Your task to perform on an android device: turn on the 12-hour format for clock Image 0: 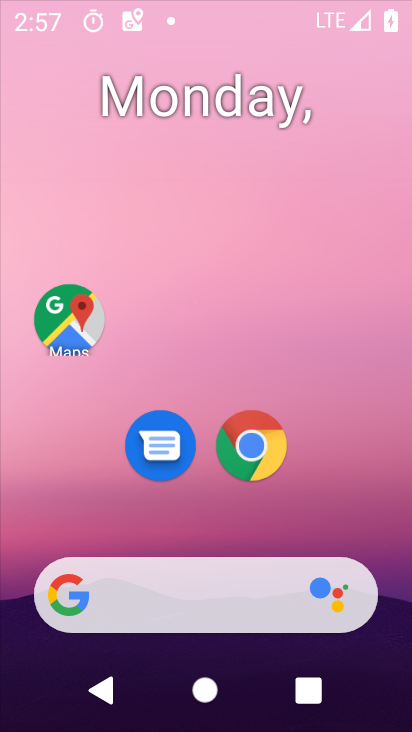
Step 0: drag from (396, 576) to (122, 218)
Your task to perform on an android device: turn on the 12-hour format for clock Image 1: 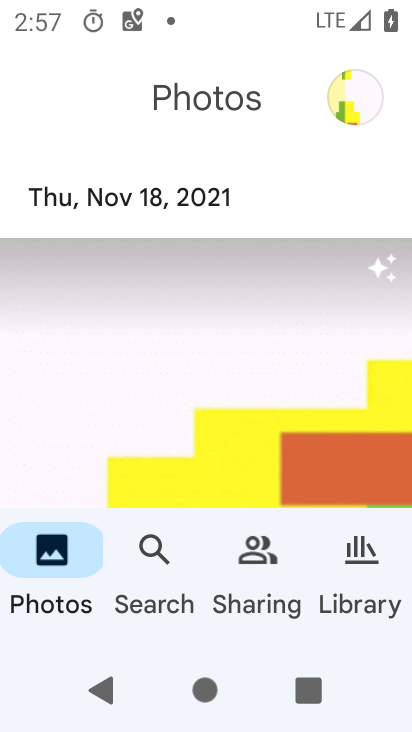
Step 1: press home button
Your task to perform on an android device: turn on the 12-hour format for clock Image 2: 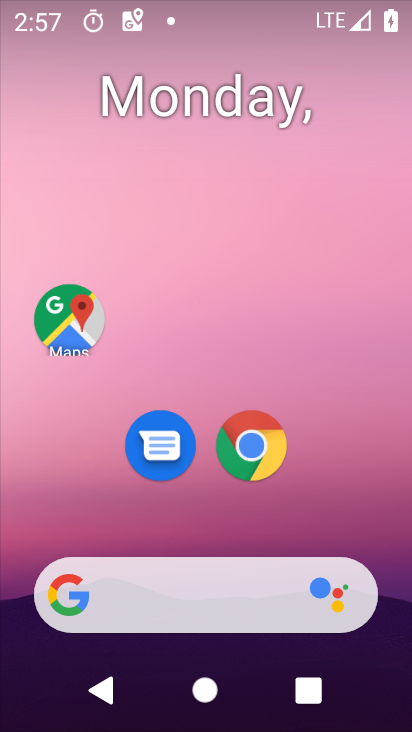
Step 2: drag from (256, 609) to (182, 125)
Your task to perform on an android device: turn on the 12-hour format for clock Image 3: 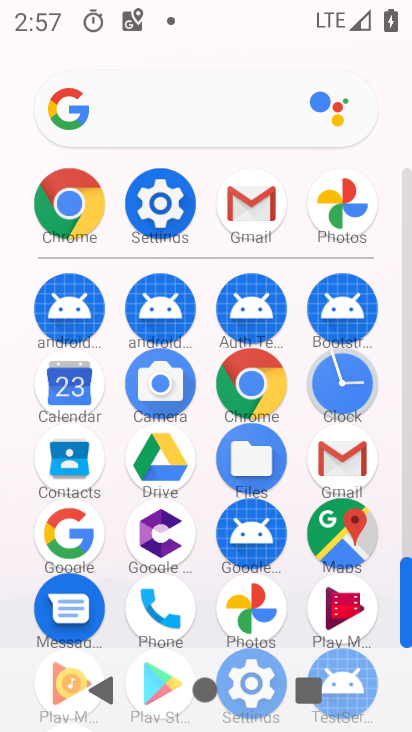
Step 3: click (147, 204)
Your task to perform on an android device: turn on the 12-hour format for clock Image 4: 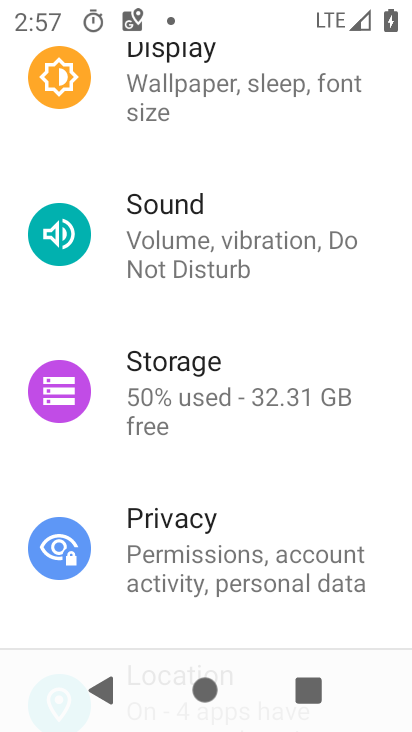
Step 4: drag from (218, 607) to (122, 18)
Your task to perform on an android device: turn on the 12-hour format for clock Image 5: 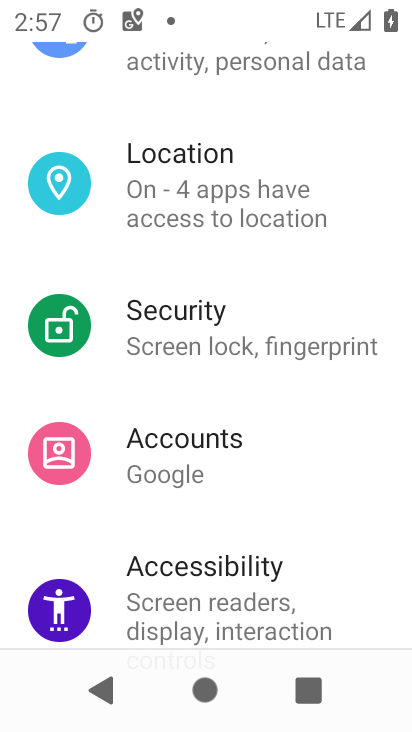
Step 5: drag from (153, 585) to (104, 120)
Your task to perform on an android device: turn on the 12-hour format for clock Image 6: 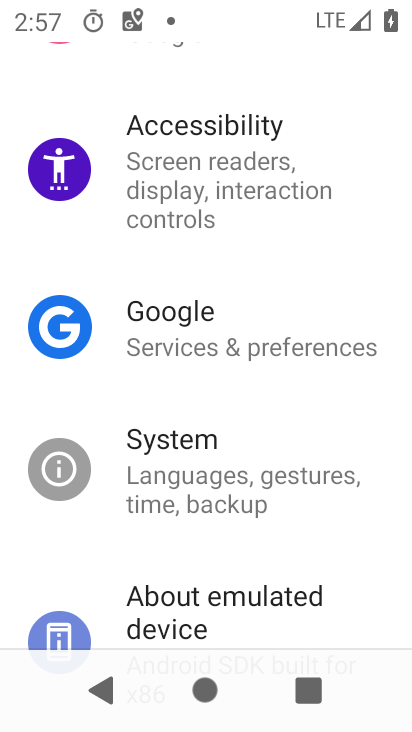
Step 6: click (170, 457)
Your task to perform on an android device: turn on the 12-hour format for clock Image 7: 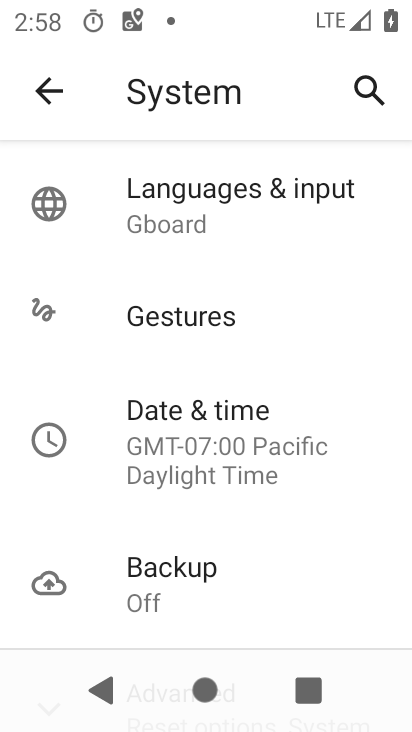
Step 7: click (211, 484)
Your task to perform on an android device: turn on the 12-hour format for clock Image 8: 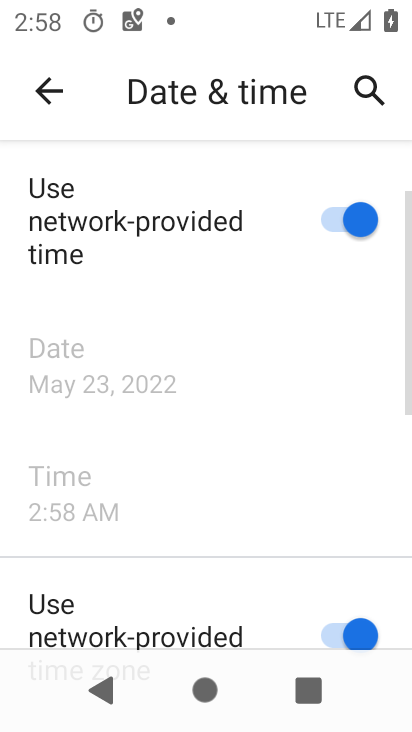
Step 8: task complete